Your task to perform on an android device: turn pop-ups on in chrome Image 0: 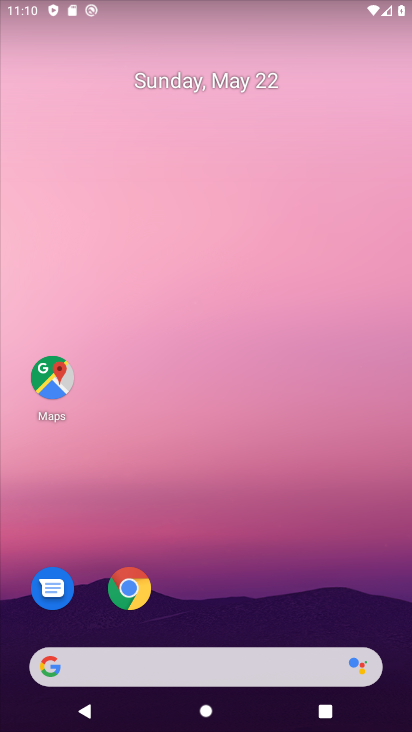
Step 0: click (146, 592)
Your task to perform on an android device: turn pop-ups on in chrome Image 1: 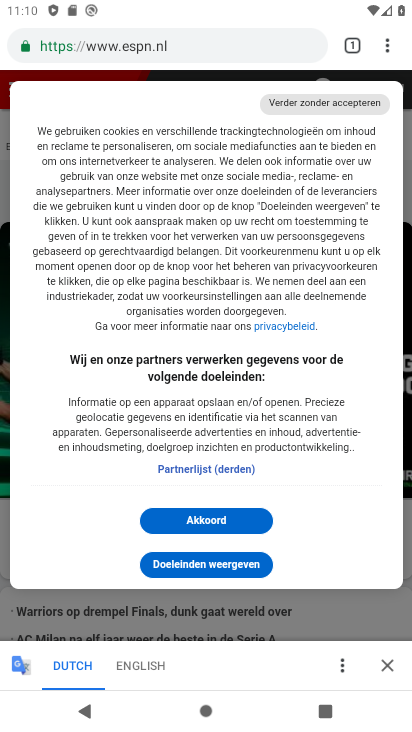
Step 1: click (387, 48)
Your task to perform on an android device: turn pop-ups on in chrome Image 2: 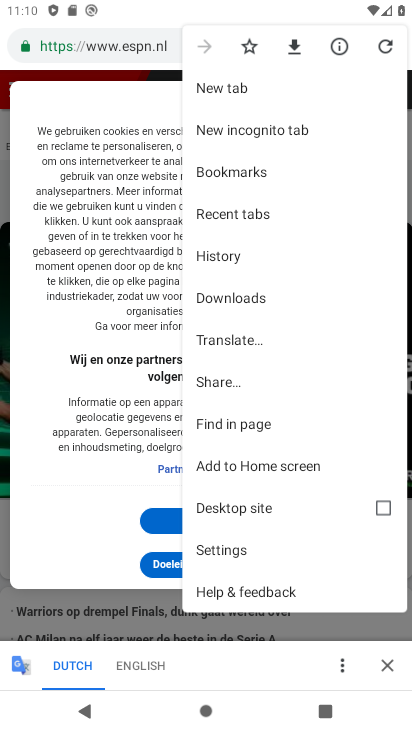
Step 2: click (209, 550)
Your task to perform on an android device: turn pop-ups on in chrome Image 3: 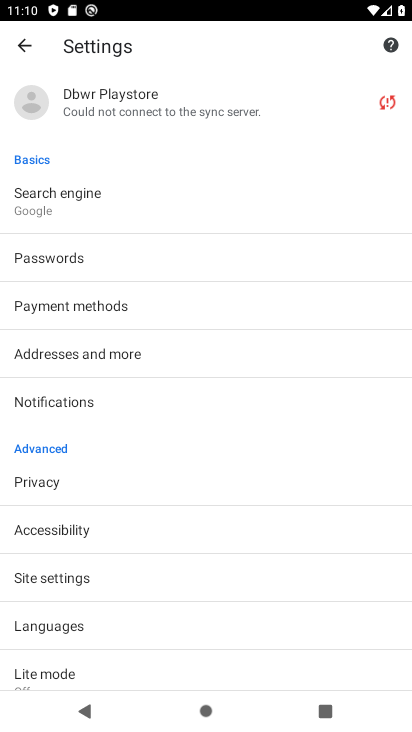
Step 3: click (24, 571)
Your task to perform on an android device: turn pop-ups on in chrome Image 4: 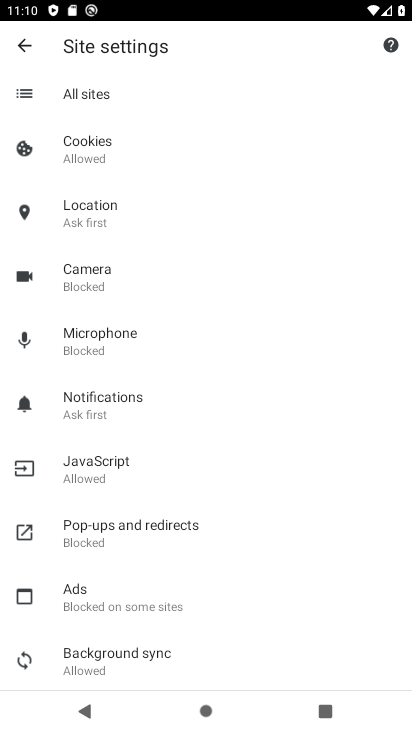
Step 4: click (129, 527)
Your task to perform on an android device: turn pop-ups on in chrome Image 5: 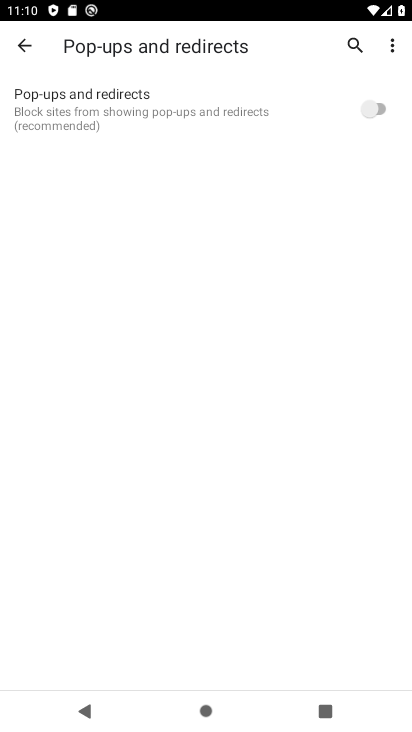
Step 5: click (376, 116)
Your task to perform on an android device: turn pop-ups on in chrome Image 6: 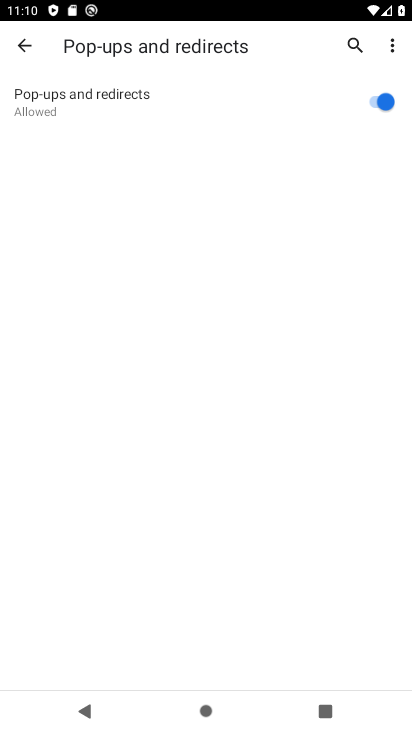
Step 6: task complete